Your task to perform on an android device: Go to sound settings Image 0: 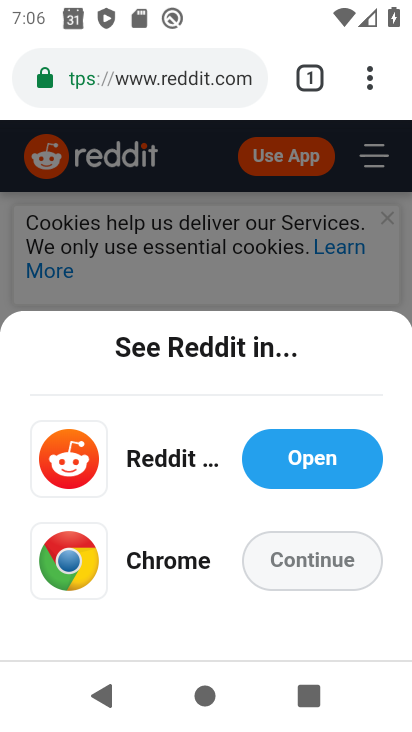
Step 0: press home button
Your task to perform on an android device: Go to sound settings Image 1: 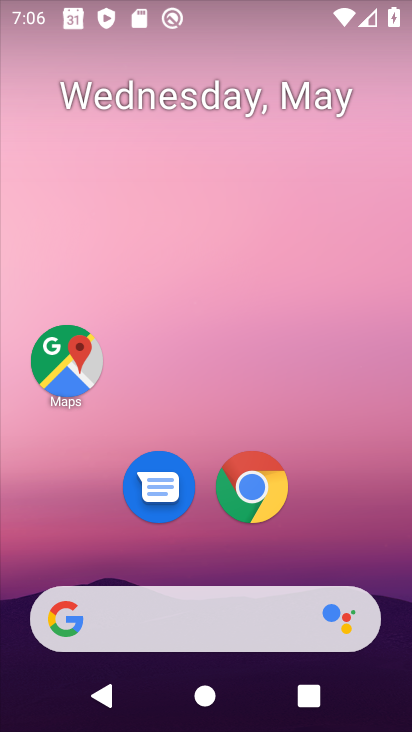
Step 1: drag from (371, 524) to (411, 105)
Your task to perform on an android device: Go to sound settings Image 2: 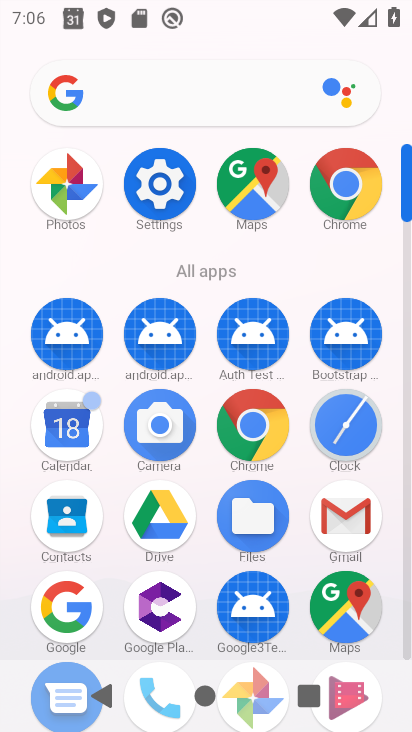
Step 2: click (164, 164)
Your task to perform on an android device: Go to sound settings Image 3: 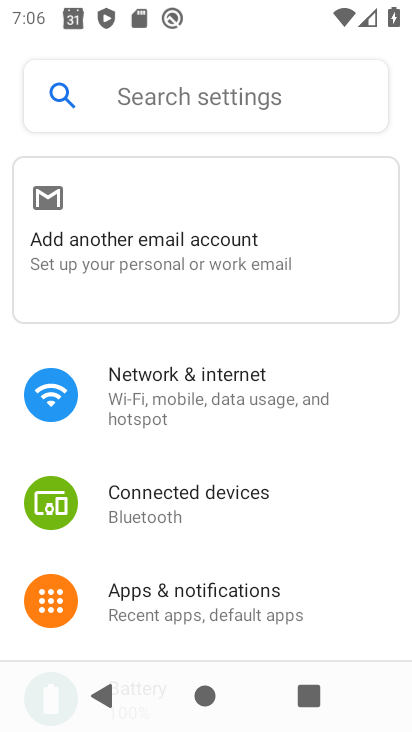
Step 3: drag from (195, 560) to (318, 189)
Your task to perform on an android device: Go to sound settings Image 4: 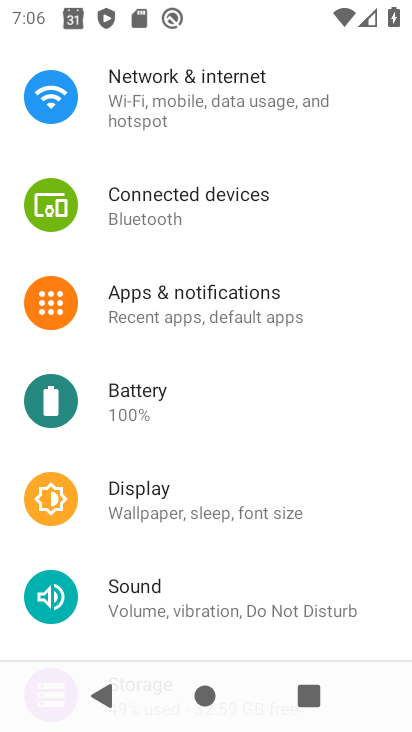
Step 4: click (151, 596)
Your task to perform on an android device: Go to sound settings Image 5: 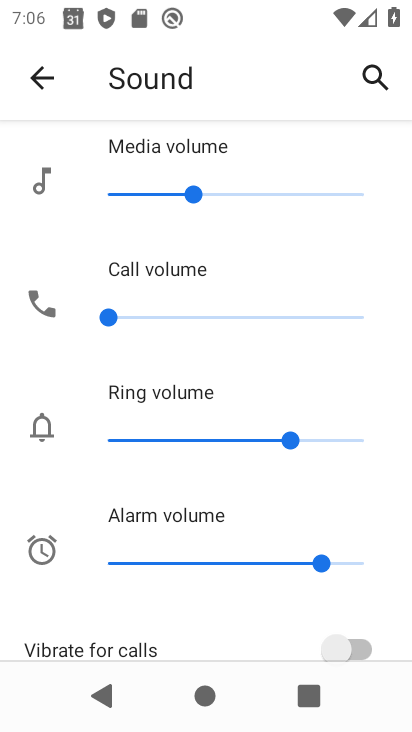
Step 5: task complete